Your task to perform on an android device: Open the phone app and click the voicemail tab. Image 0: 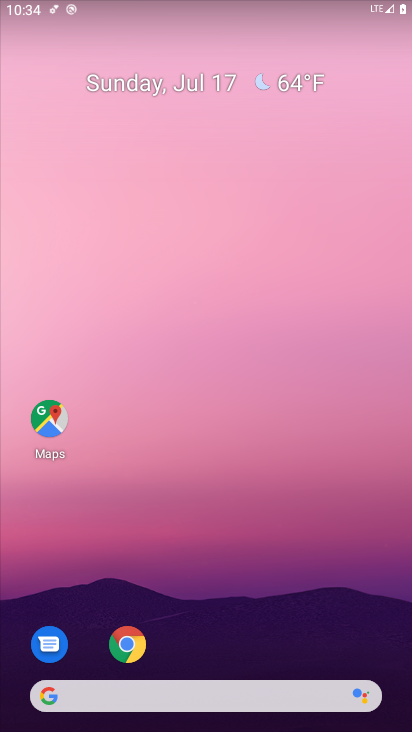
Step 0: press home button
Your task to perform on an android device: Open the phone app and click the voicemail tab. Image 1: 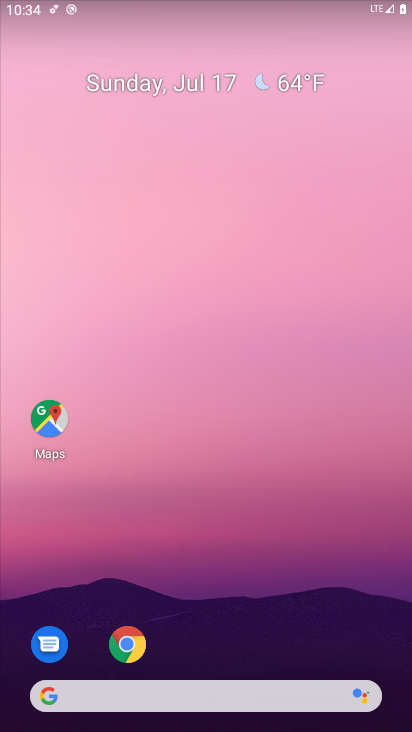
Step 1: drag from (313, 622) to (305, 119)
Your task to perform on an android device: Open the phone app and click the voicemail tab. Image 2: 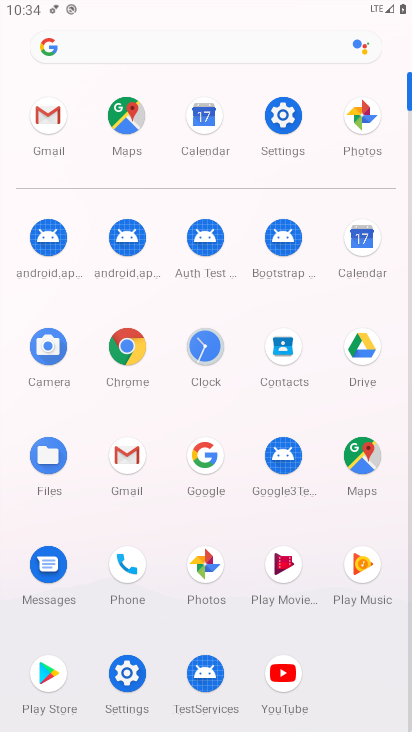
Step 2: click (117, 565)
Your task to perform on an android device: Open the phone app and click the voicemail tab. Image 3: 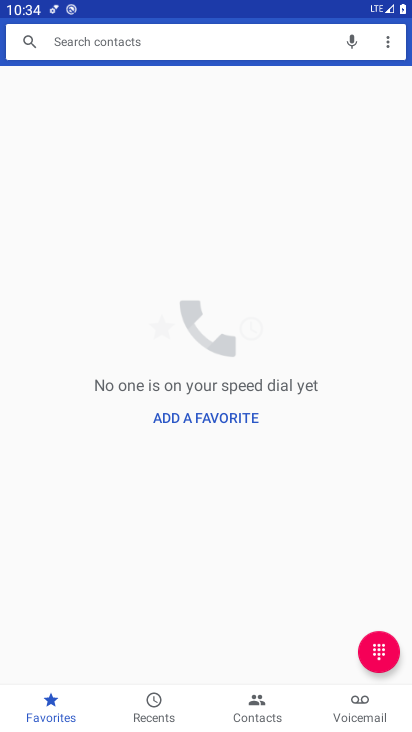
Step 3: click (359, 696)
Your task to perform on an android device: Open the phone app and click the voicemail tab. Image 4: 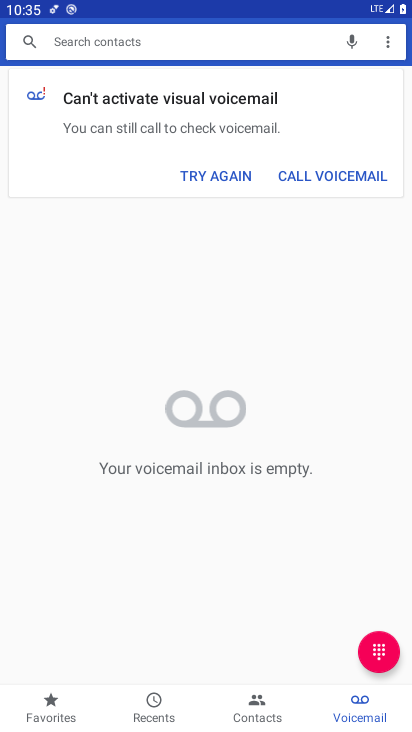
Step 4: task complete